Your task to perform on an android device: turn notification dots on Image 0: 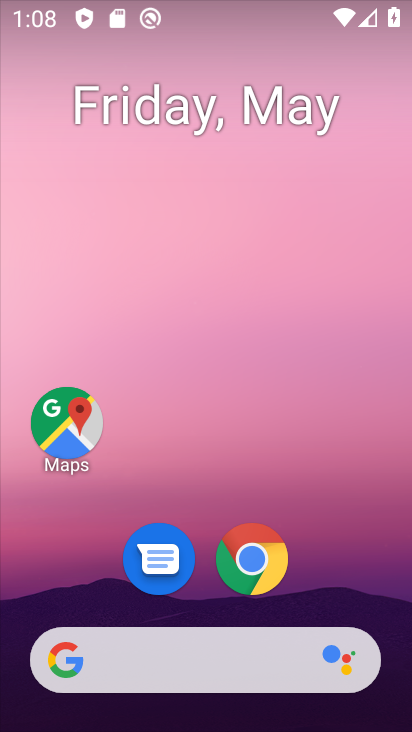
Step 0: click (299, 103)
Your task to perform on an android device: turn notification dots on Image 1: 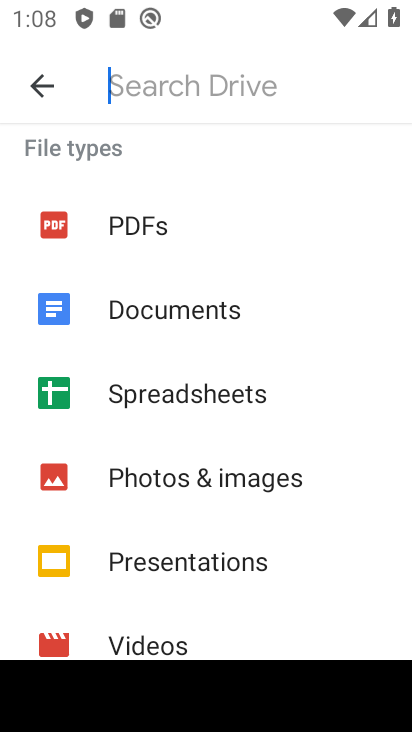
Step 1: drag from (302, 560) to (306, 231)
Your task to perform on an android device: turn notification dots on Image 2: 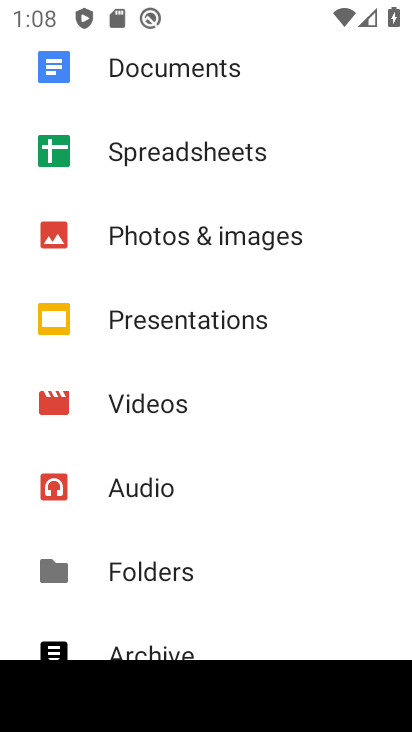
Step 2: press home button
Your task to perform on an android device: turn notification dots on Image 3: 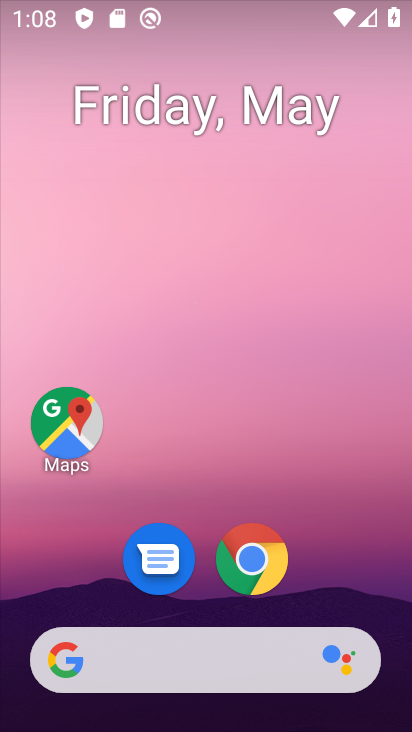
Step 3: drag from (320, 609) to (318, 191)
Your task to perform on an android device: turn notification dots on Image 4: 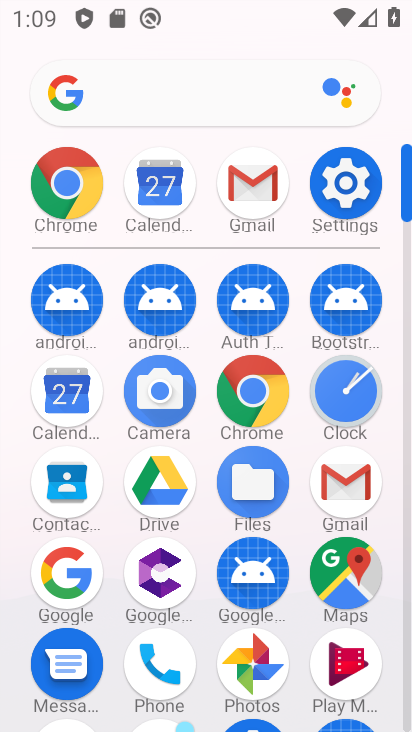
Step 4: click (340, 209)
Your task to perform on an android device: turn notification dots on Image 5: 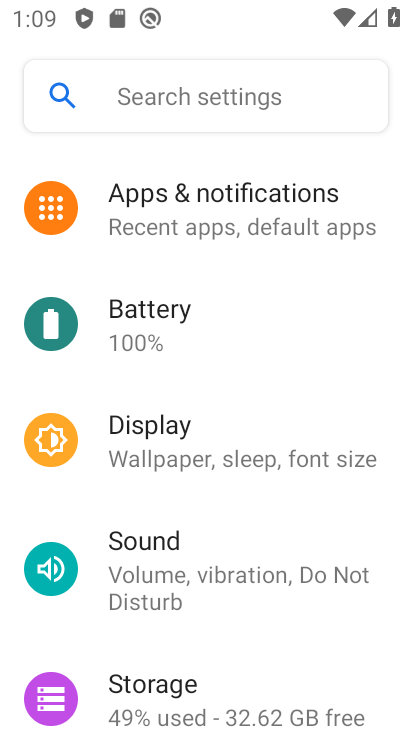
Step 5: click (289, 230)
Your task to perform on an android device: turn notification dots on Image 6: 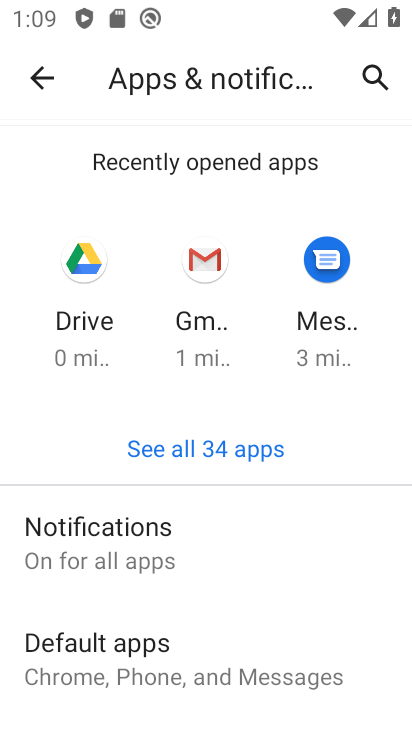
Step 6: click (165, 553)
Your task to perform on an android device: turn notification dots on Image 7: 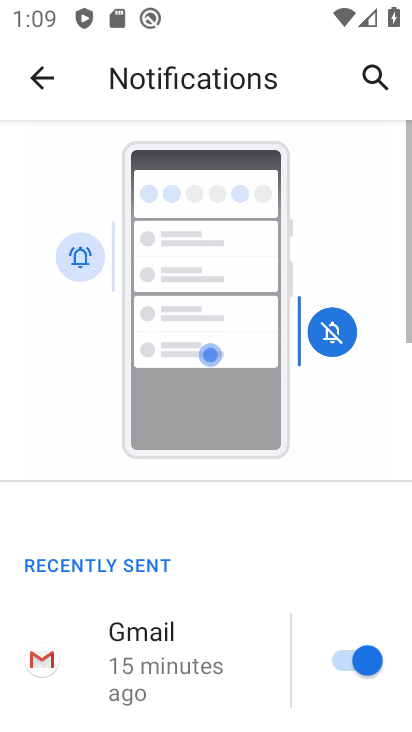
Step 7: drag from (210, 700) to (224, 324)
Your task to perform on an android device: turn notification dots on Image 8: 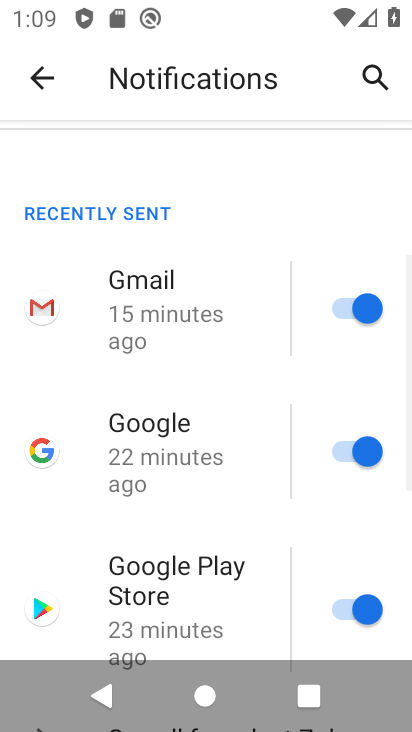
Step 8: drag from (183, 662) to (219, 312)
Your task to perform on an android device: turn notification dots on Image 9: 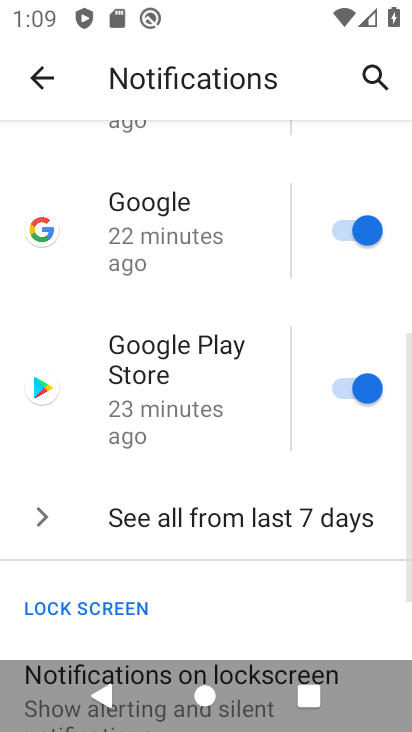
Step 9: drag from (195, 603) to (221, 230)
Your task to perform on an android device: turn notification dots on Image 10: 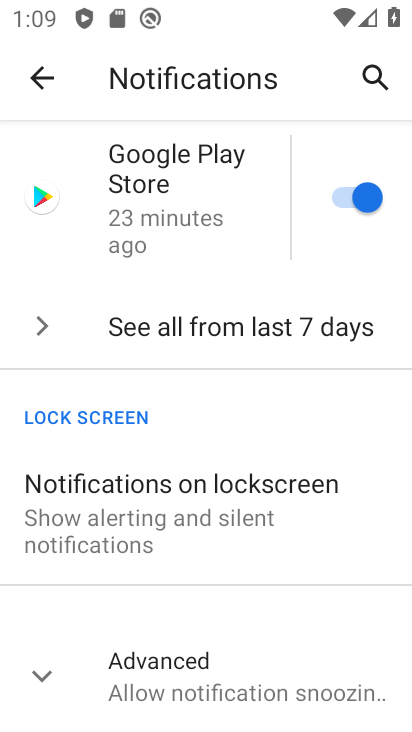
Step 10: drag from (199, 626) to (201, 307)
Your task to perform on an android device: turn notification dots on Image 11: 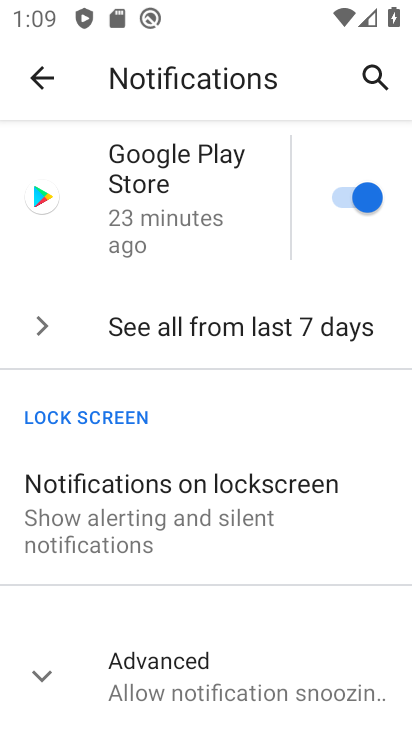
Step 11: click (175, 653)
Your task to perform on an android device: turn notification dots on Image 12: 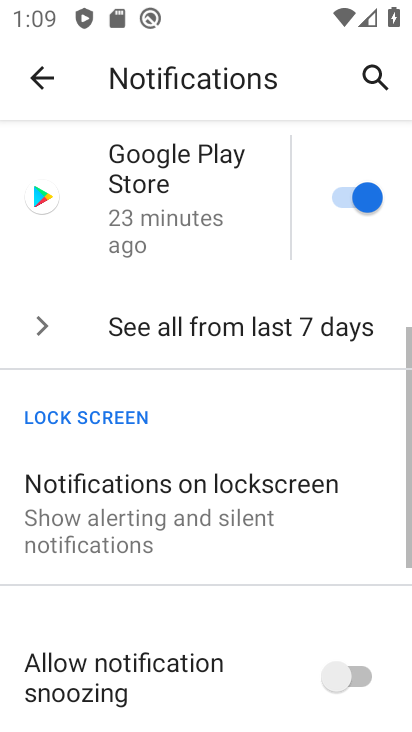
Step 12: task complete